Your task to perform on an android device: turn off wifi Image 0: 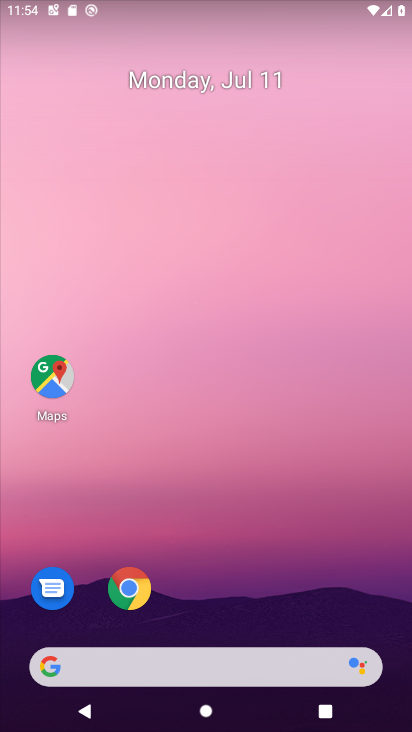
Step 0: drag from (252, 482) to (203, 0)
Your task to perform on an android device: turn off wifi Image 1: 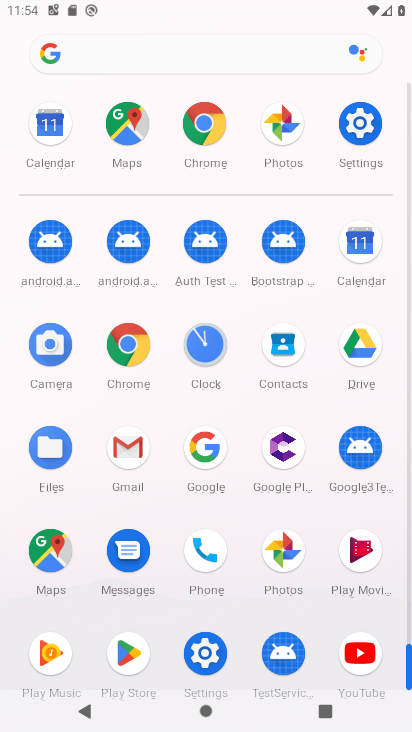
Step 1: click (359, 125)
Your task to perform on an android device: turn off wifi Image 2: 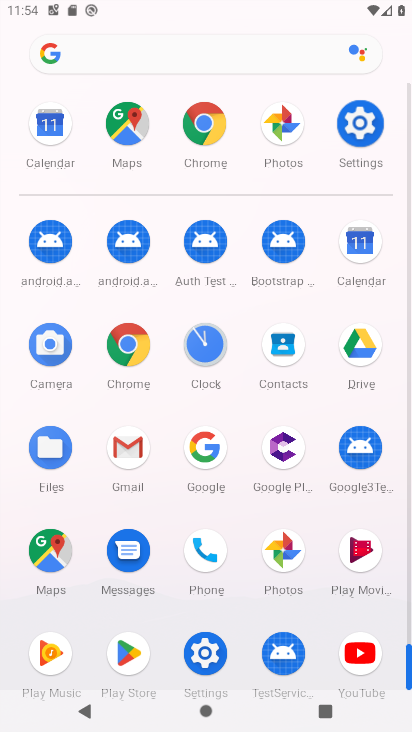
Step 2: click (360, 124)
Your task to perform on an android device: turn off wifi Image 3: 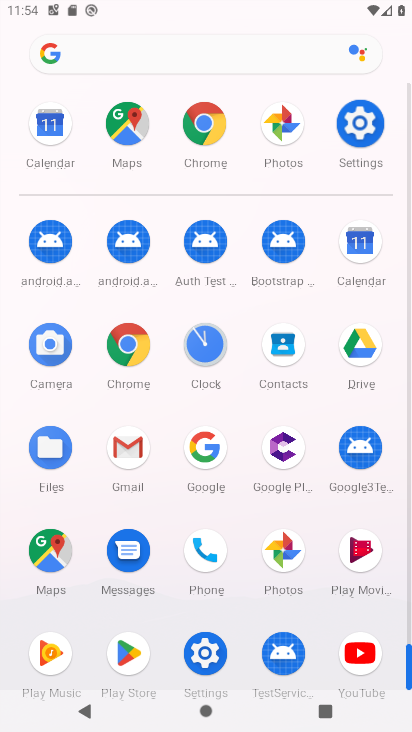
Step 3: click (360, 124)
Your task to perform on an android device: turn off wifi Image 4: 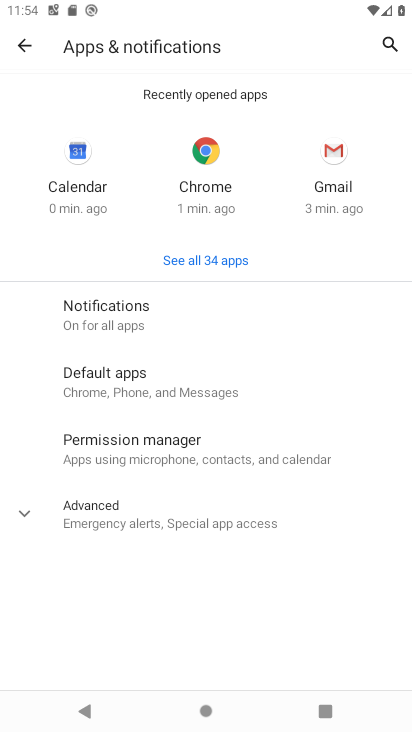
Step 4: click (24, 34)
Your task to perform on an android device: turn off wifi Image 5: 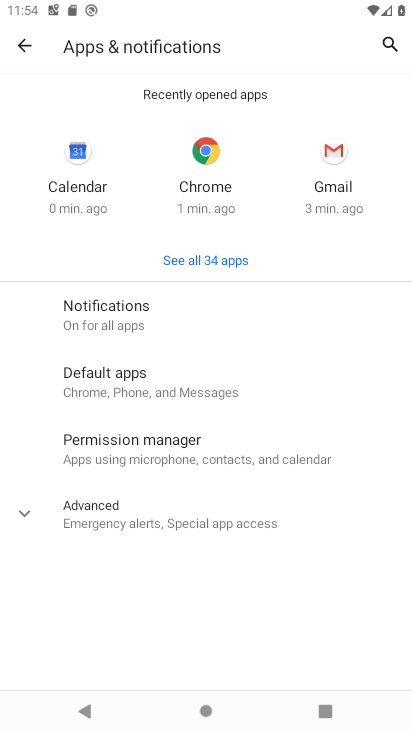
Step 5: click (23, 35)
Your task to perform on an android device: turn off wifi Image 6: 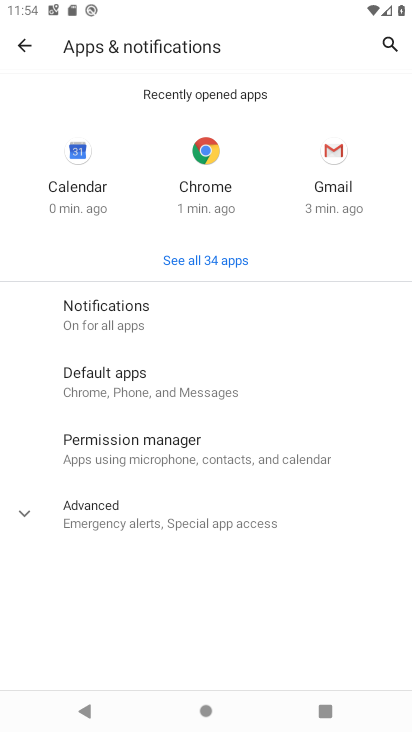
Step 6: click (25, 39)
Your task to perform on an android device: turn off wifi Image 7: 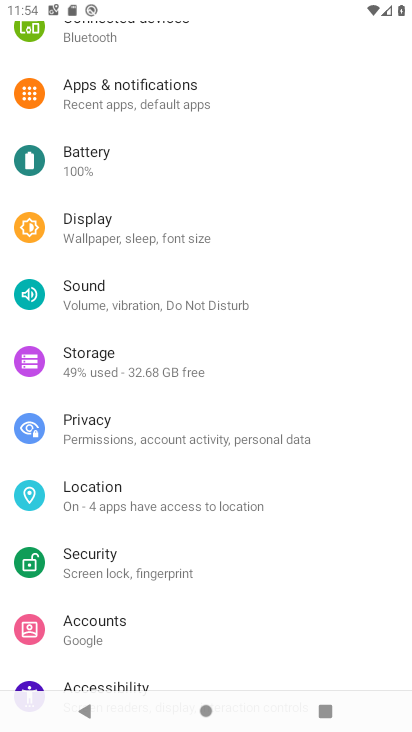
Step 7: drag from (105, 209) to (136, 528)
Your task to perform on an android device: turn off wifi Image 8: 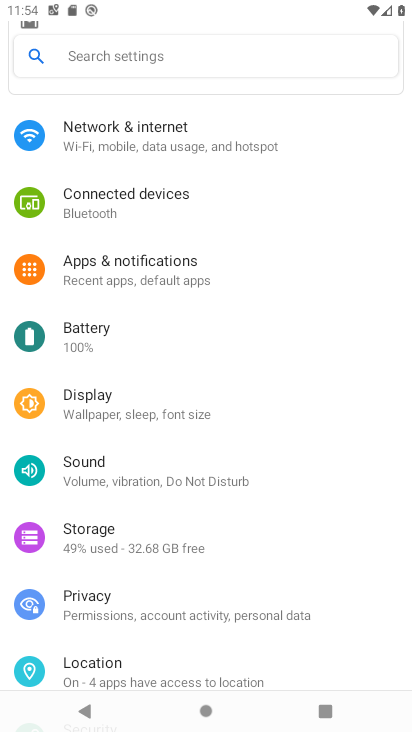
Step 8: click (144, 130)
Your task to perform on an android device: turn off wifi Image 9: 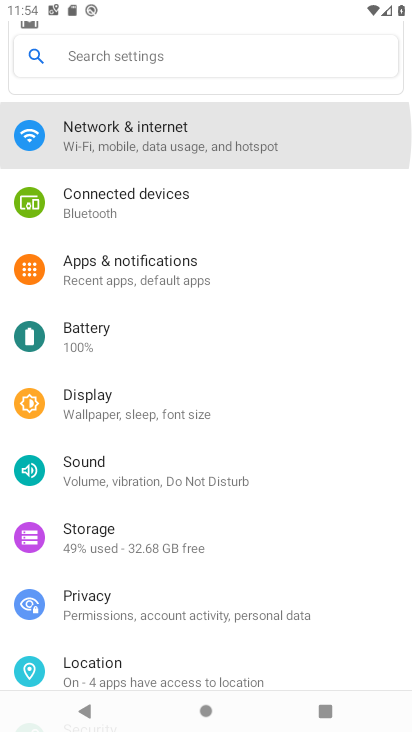
Step 9: click (146, 130)
Your task to perform on an android device: turn off wifi Image 10: 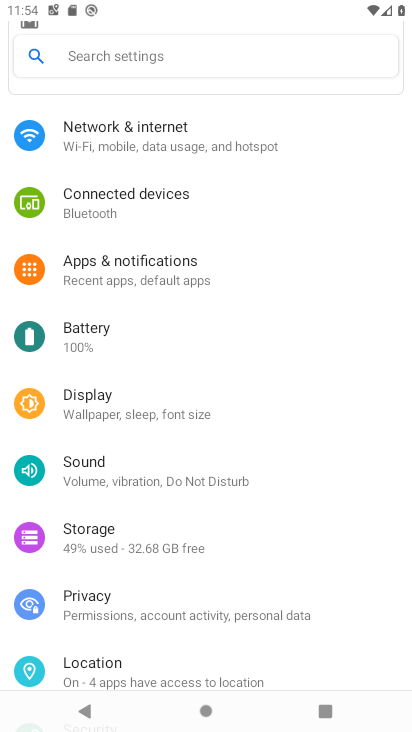
Step 10: click (146, 130)
Your task to perform on an android device: turn off wifi Image 11: 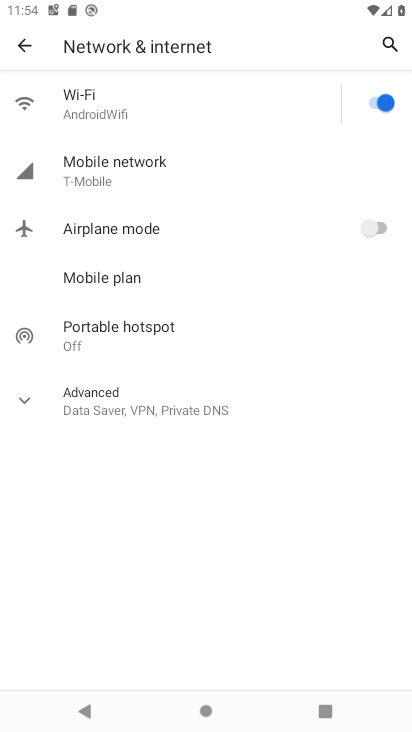
Step 11: click (389, 78)
Your task to perform on an android device: turn off wifi Image 12: 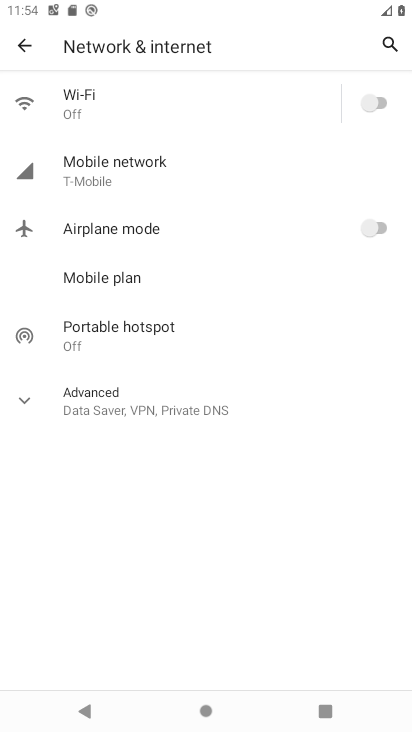
Step 12: click (384, 94)
Your task to perform on an android device: turn off wifi Image 13: 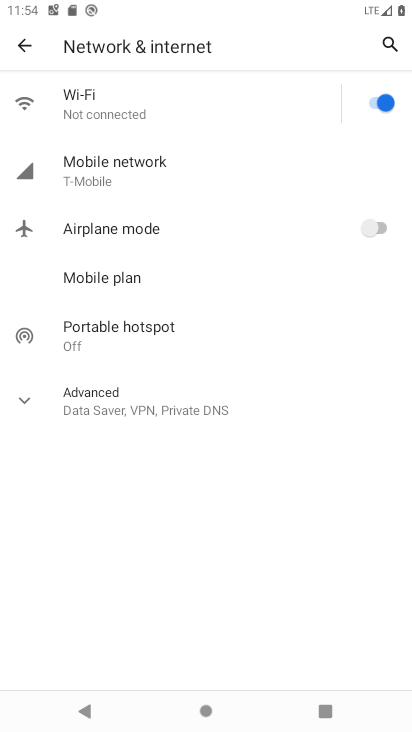
Step 13: click (384, 95)
Your task to perform on an android device: turn off wifi Image 14: 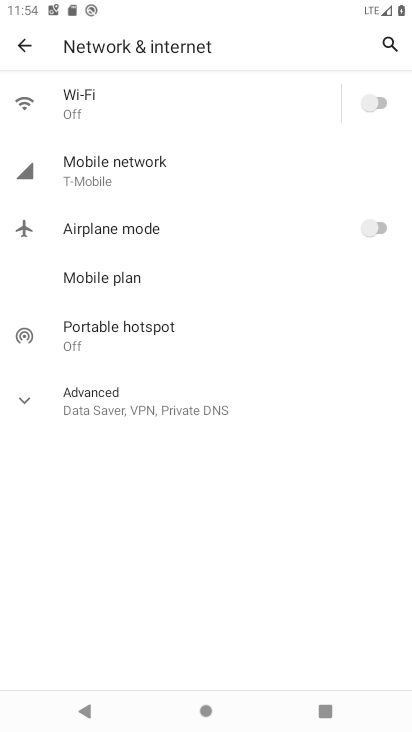
Step 14: task complete